Your task to perform on an android device: uninstall "Mercado Libre" Image 0: 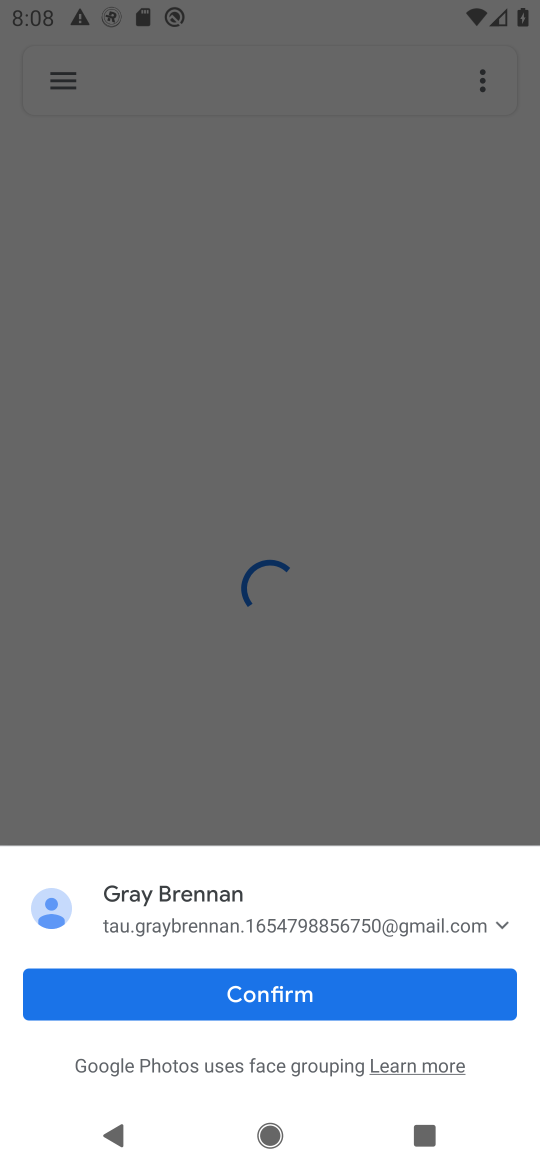
Step 0: press home button
Your task to perform on an android device: uninstall "Mercado Libre" Image 1: 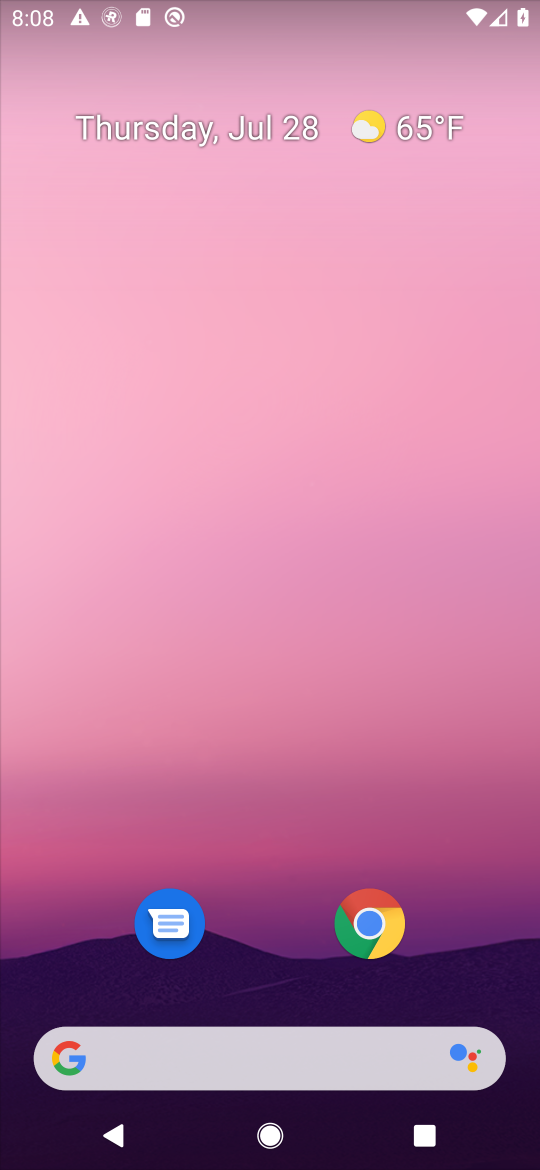
Step 1: drag from (413, 700) to (395, 142)
Your task to perform on an android device: uninstall "Mercado Libre" Image 2: 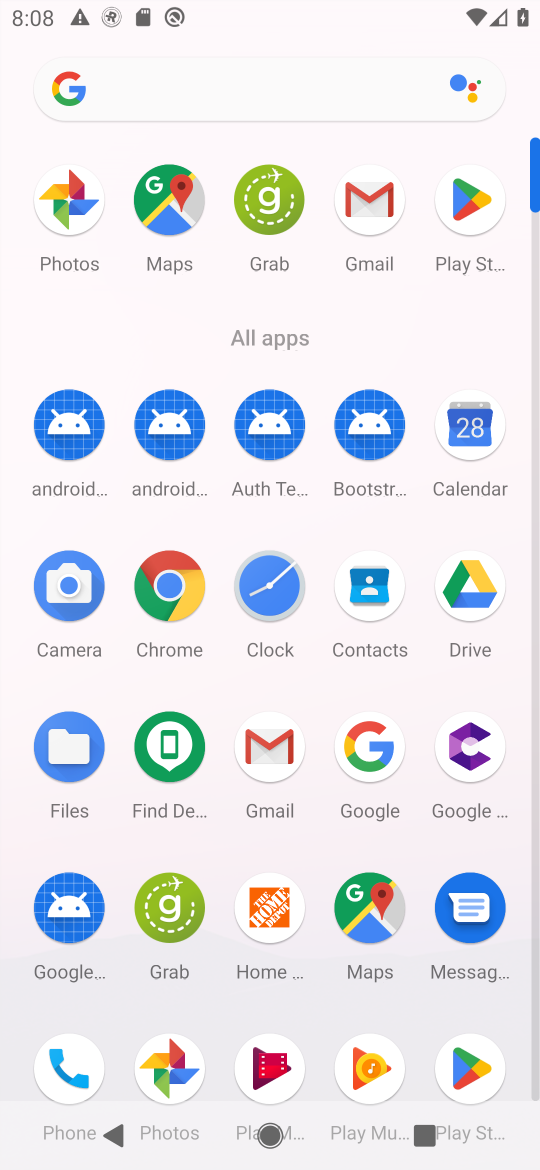
Step 2: click (487, 213)
Your task to perform on an android device: uninstall "Mercado Libre" Image 3: 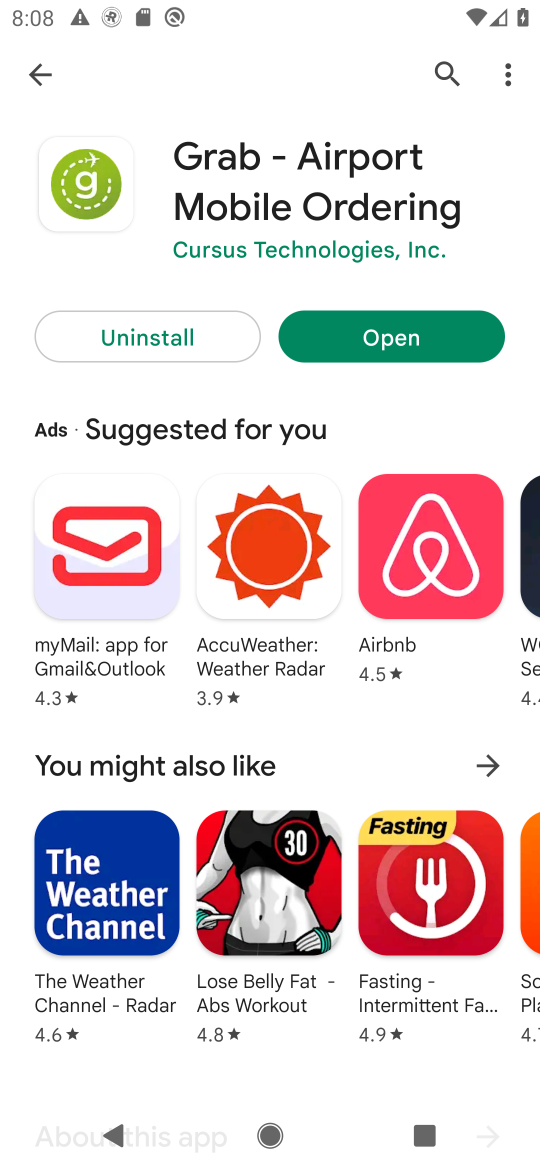
Step 3: click (445, 72)
Your task to perform on an android device: uninstall "Mercado Libre" Image 4: 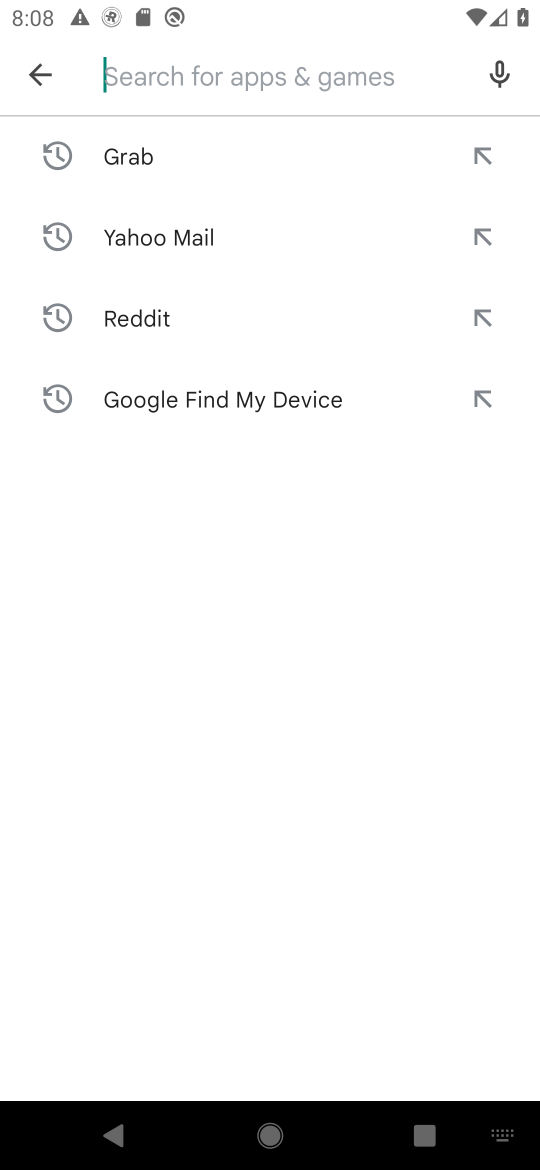
Step 4: type "Mercado Libre"
Your task to perform on an android device: uninstall "Mercado Libre" Image 5: 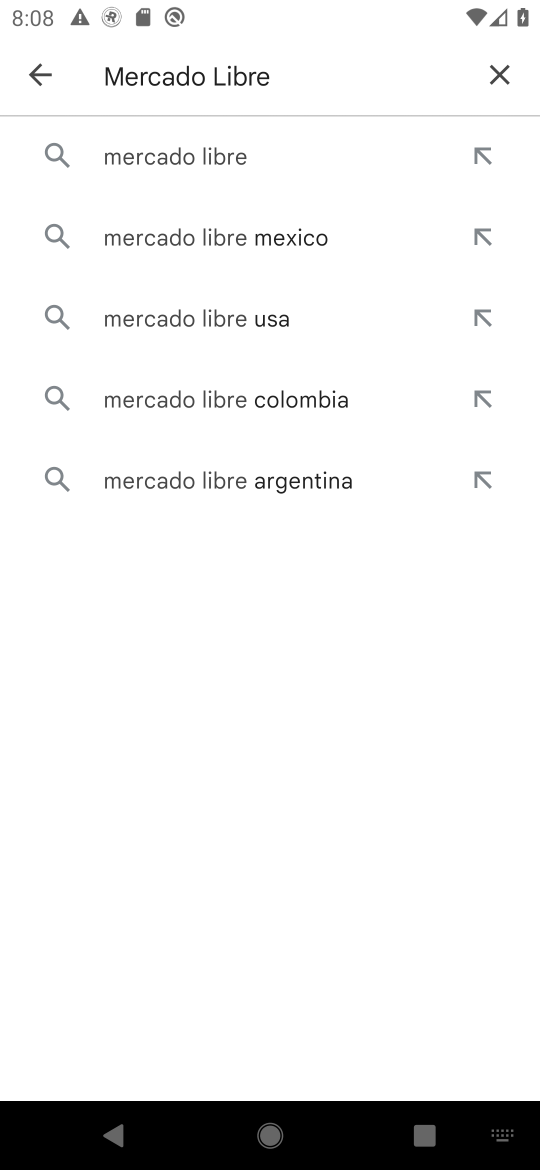
Step 5: press enter
Your task to perform on an android device: uninstall "Mercado Libre" Image 6: 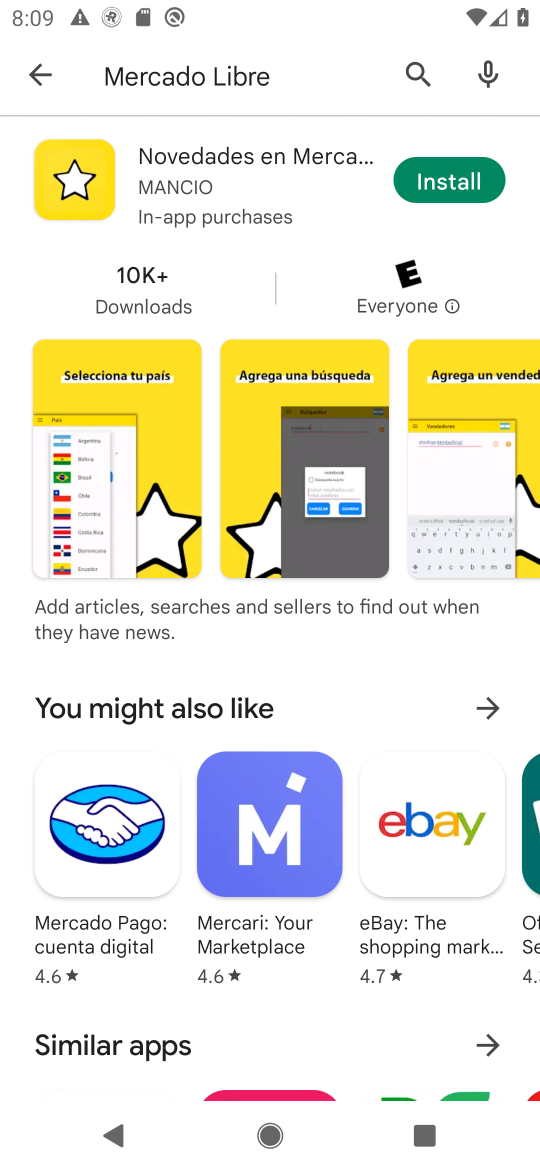
Step 6: task complete